Your task to perform on an android device: set default search engine in the chrome app Image 0: 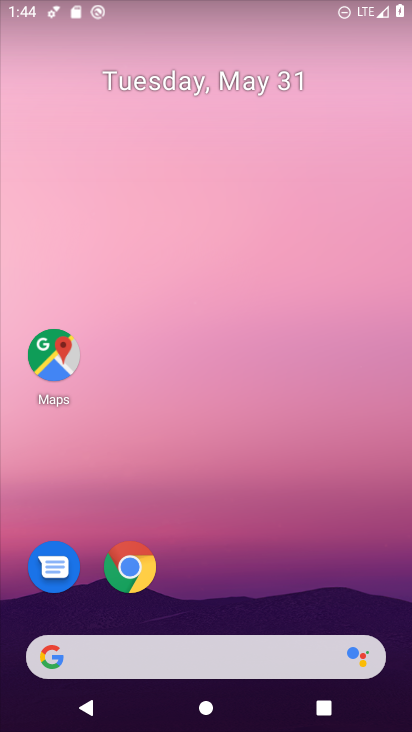
Step 0: click (119, 570)
Your task to perform on an android device: set default search engine in the chrome app Image 1: 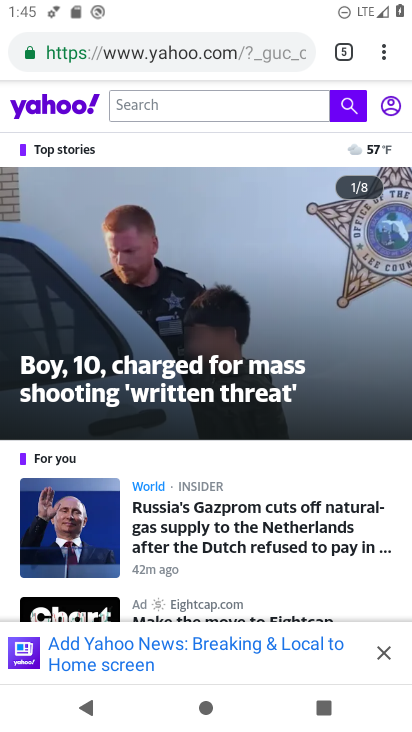
Step 1: click (383, 51)
Your task to perform on an android device: set default search engine in the chrome app Image 2: 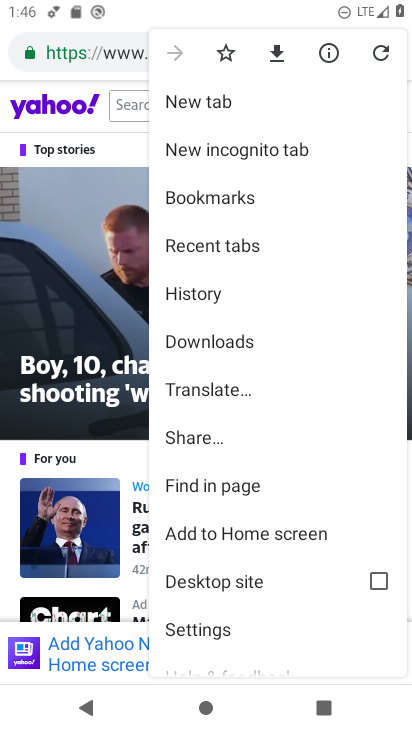
Step 2: click (221, 624)
Your task to perform on an android device: set default search engine in the chrome app Image 3: 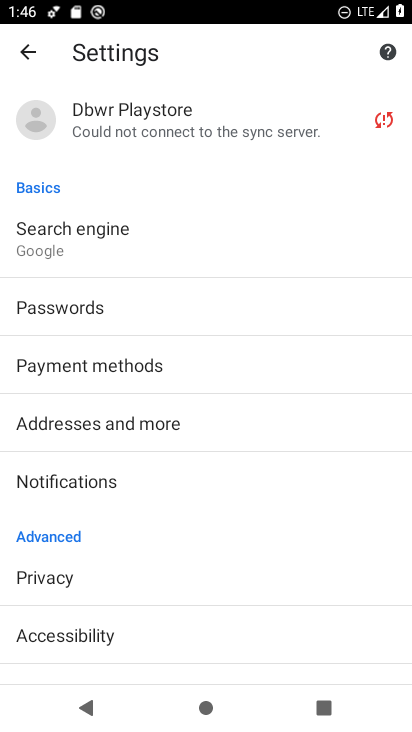
Step 3: click (117, 234)
Your task to perform on an android device: set default search engine in the chrome app Image 4: 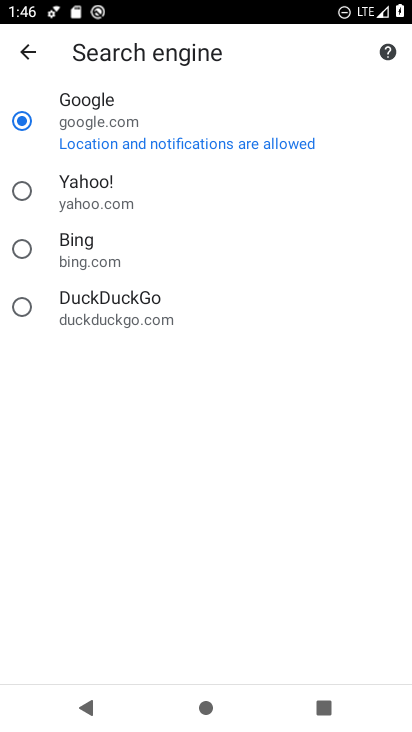
Step 4: click (99, 211)
Your task to perform on an android device: set default search engine in the chrome app Image 5: 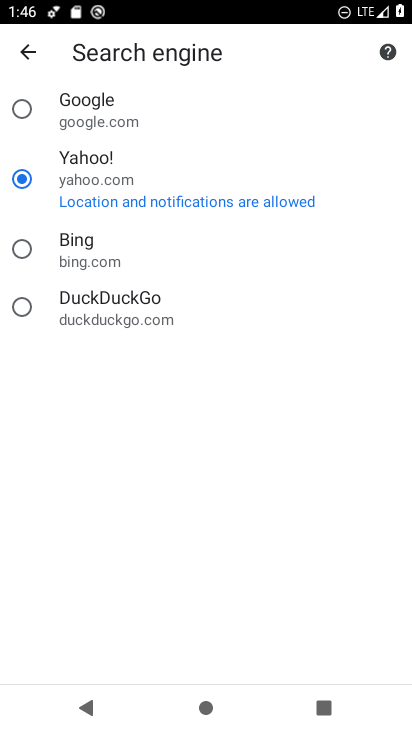
Step 5: task complete